Your task to perform on an android device: What's the weather? Image 0: 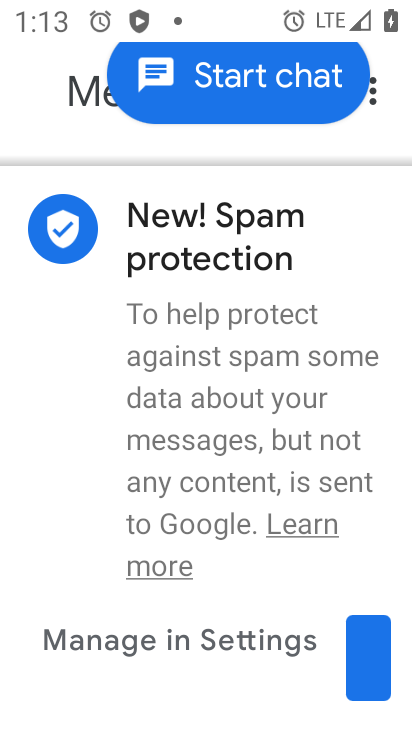
Step 0: press home button
Your task to perform on an android device: What's the weather? Image 1: 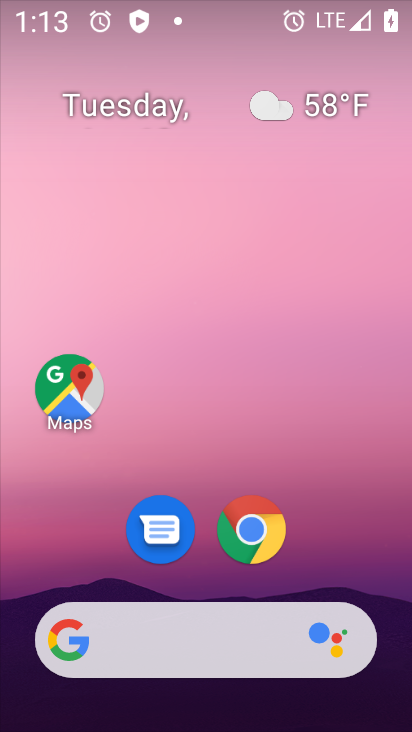
Step 1: drag from (254, 417) to (304, 70)
Your task to perform on an android device: What's the weather? Image 2: 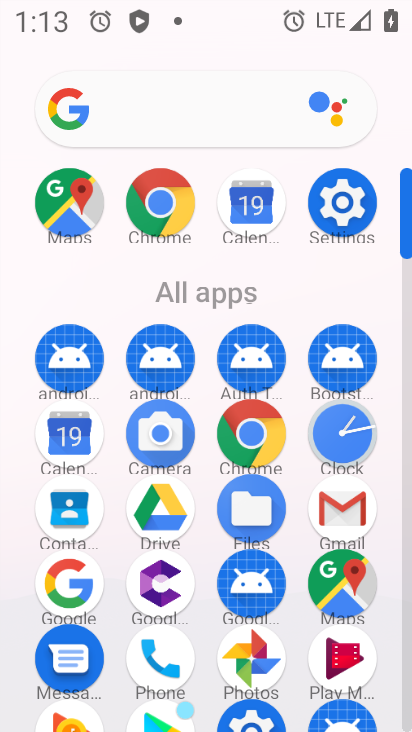
Step 2: click (62, 592)
Your task to perform on an android device: What's the weather? Image 3: 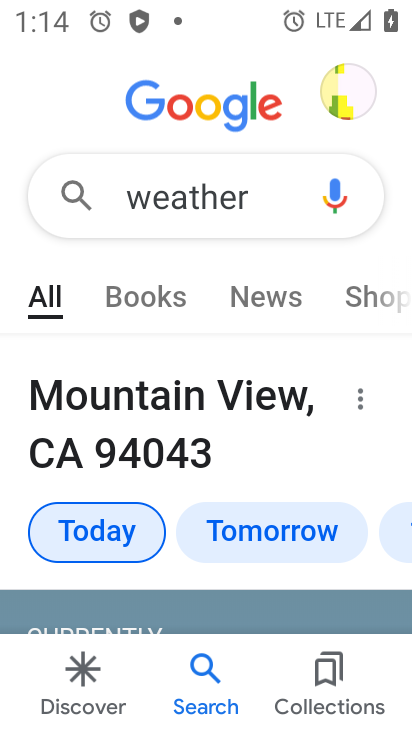
Step 3: task complete